Your task to perform on an android device: Look up the best rated gaming chairs on Target. Image 0: 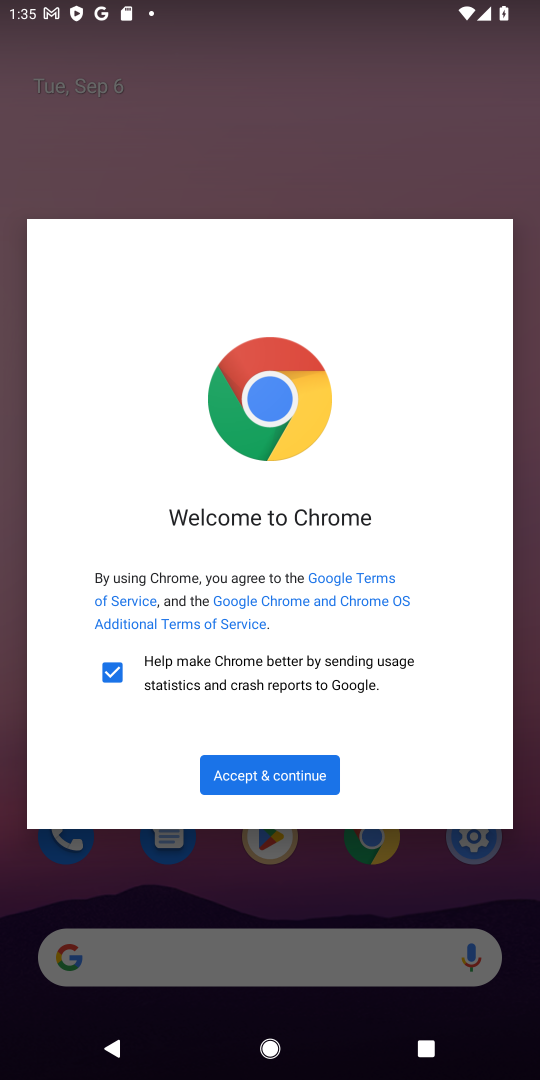
Step 0: click (260, 777)
Your task to perform on an android device: Look up the best rated gaming chairs on Target. Image 1: 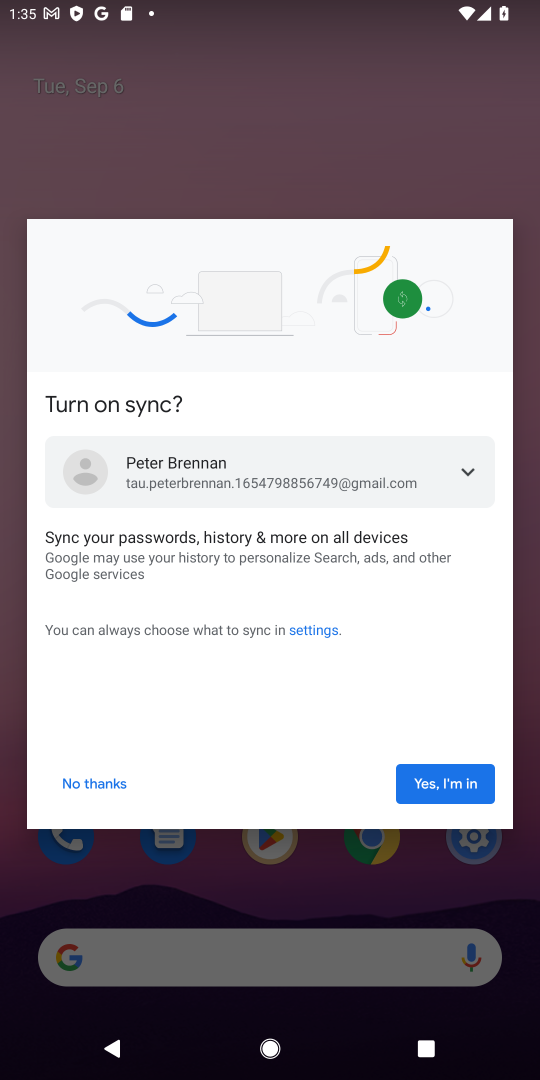
Step 1: click (444, 791)
Your task to perform on an android device: Look up the best rated gaming chairs on Target. Image 2: 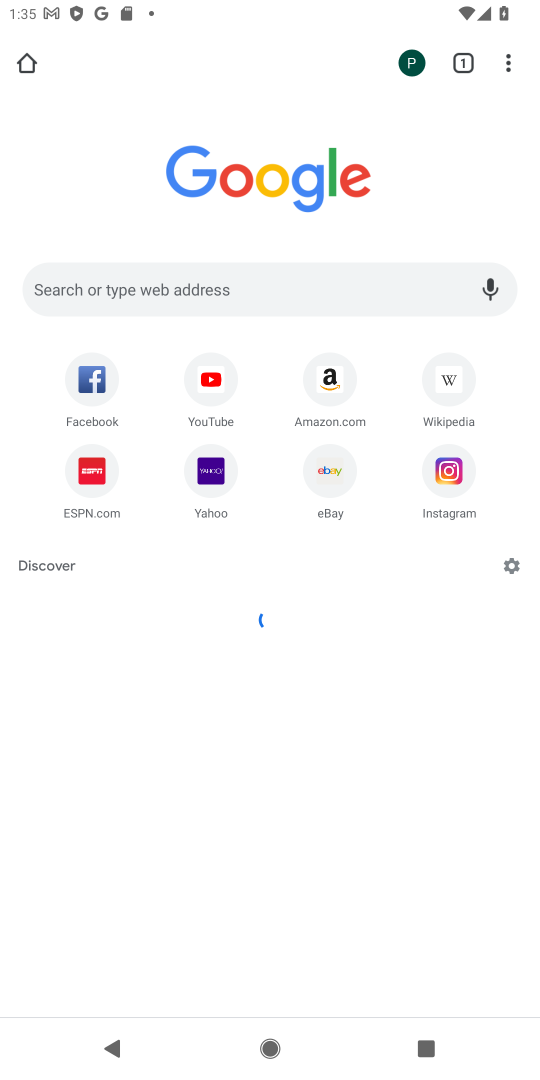
Step 2: click (235, 289)
Your task to perform on an android device: Look up the best rated gaming chairs on Target. Image 3: 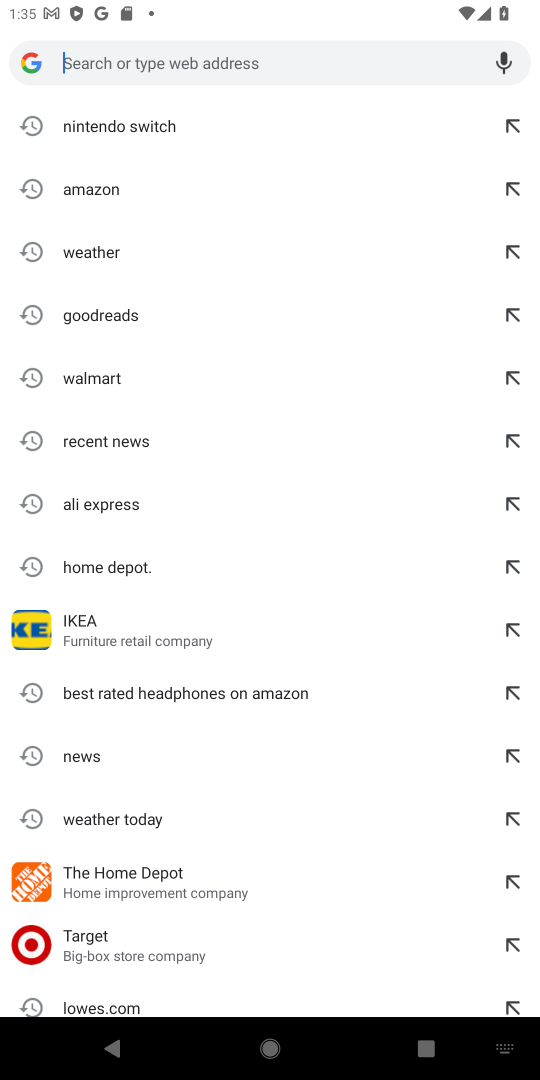
Step 3: click (68, 939)
Your task to perform on an android device: Look up the best rated gaming chairs on Target. Image 4: 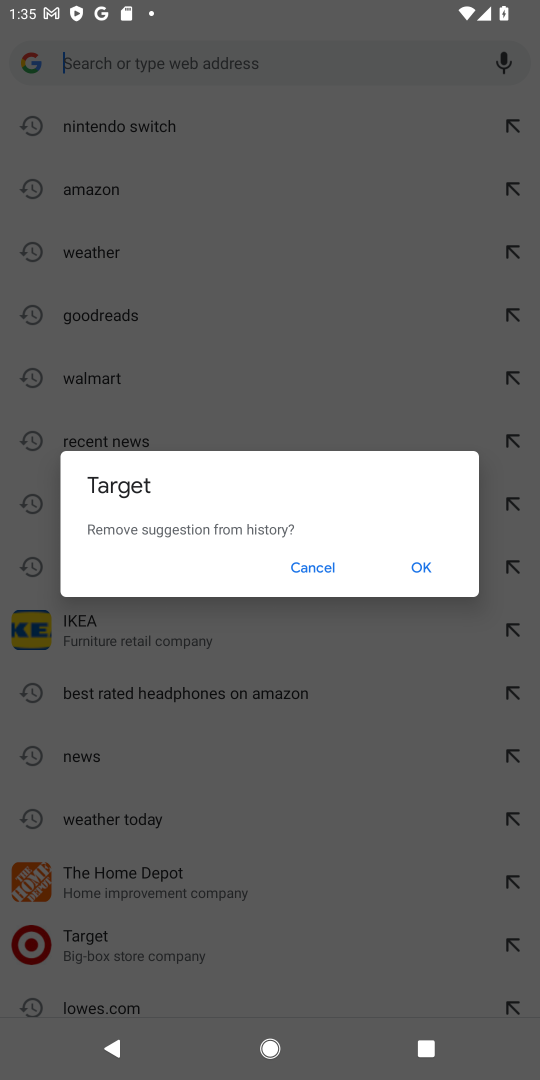
Step 4: click (310, 568)
Your task to perform on an android device: Look up the best rated gaming chairs on Target. Image 5: 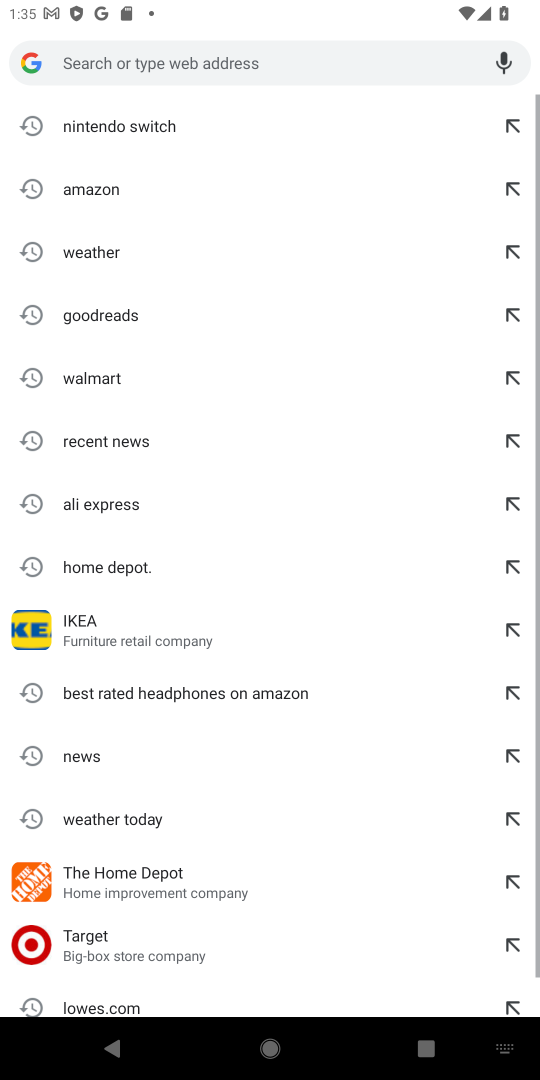
Step 5: click (106, 931)
Your task to perform on an android device: Look up the best rated gaming chairs on Target. Image 6: 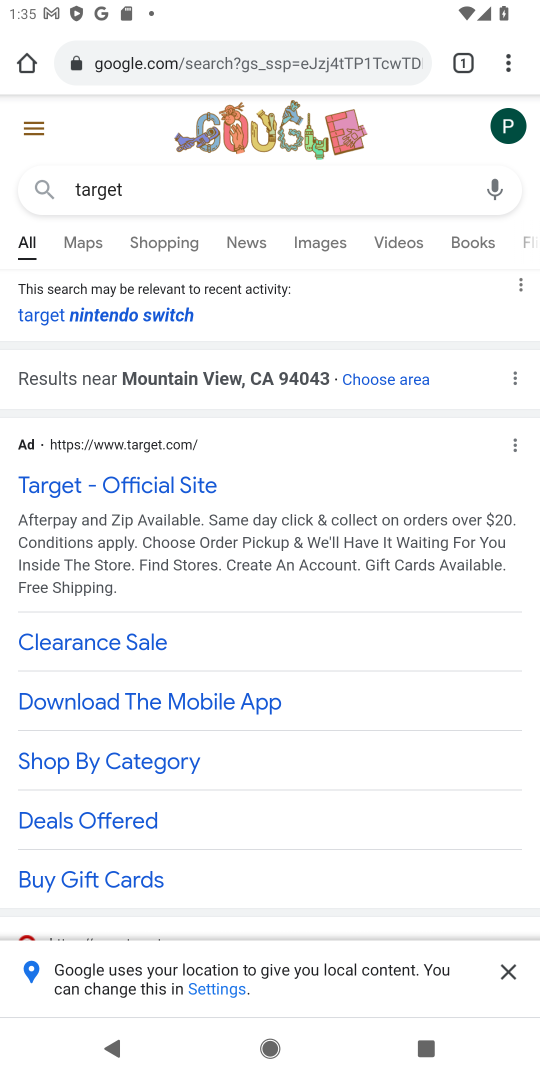
Step 6: click (120, 474)
Your task to perform on an android device: Look up the best rated gaming chairs on Target. Image 7: 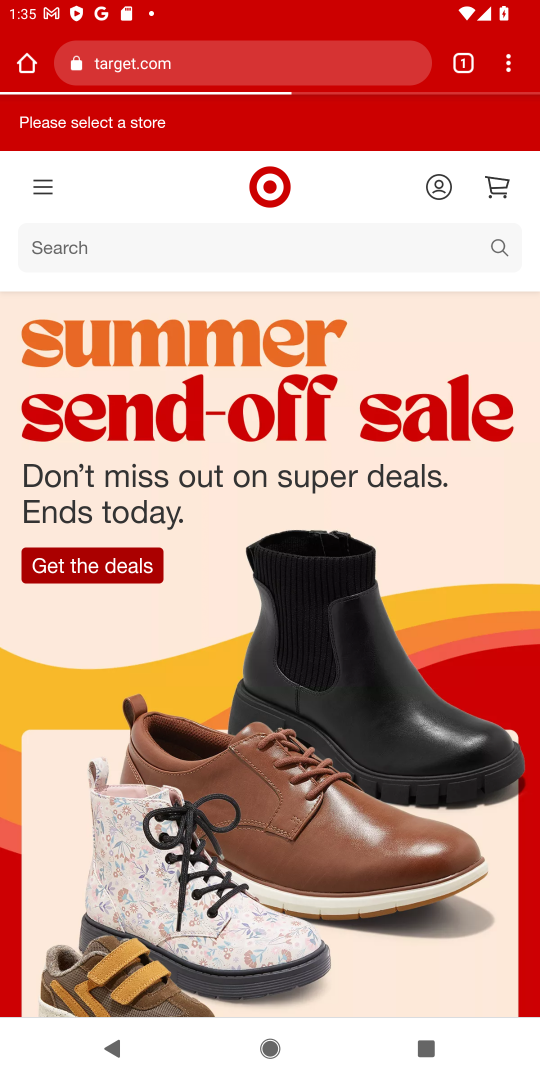
Step 7: click (252, 237)
Your task to perform on an android device: Look up the best rated gaming chairs on Target. Image 8: 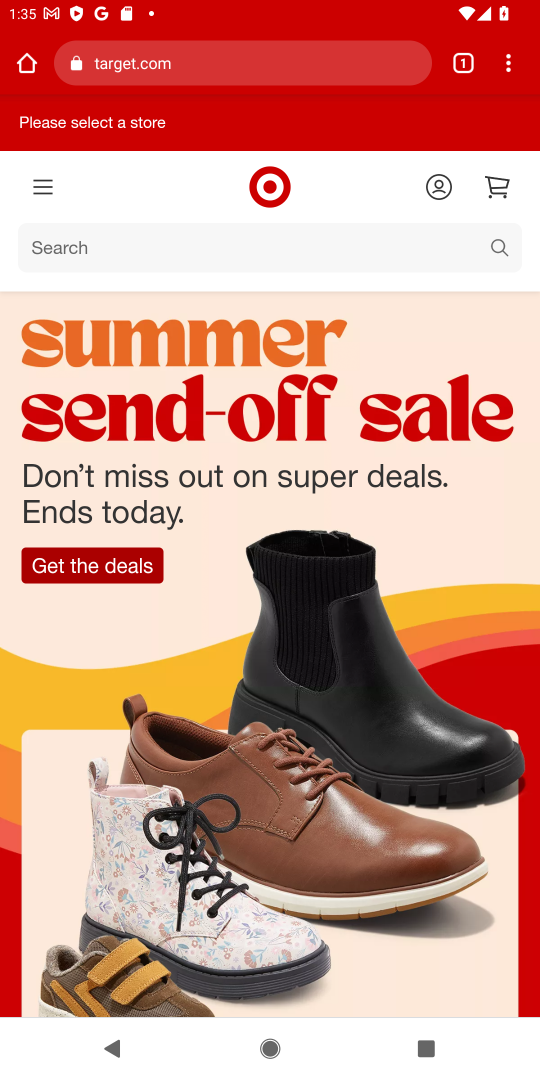
Step 8: click (100, 240)
Your task to perform on an android device: Look up the best rated gaming chairs on Target. Image 9: 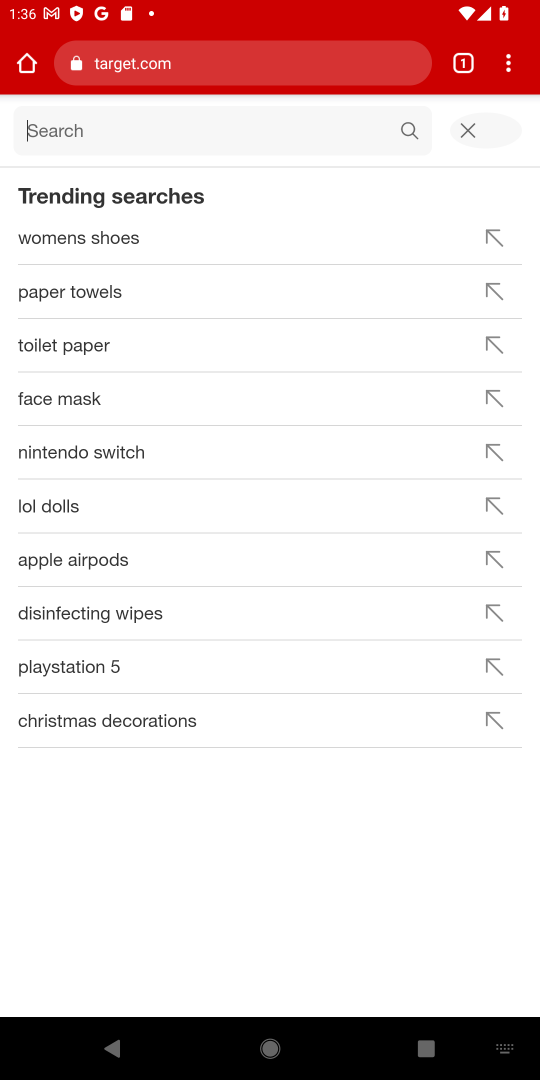
Step 9: type "best rated gaming chairs"
Your task to perform on an android device: Look up the best rated gaming chairs on Target. Image 10: 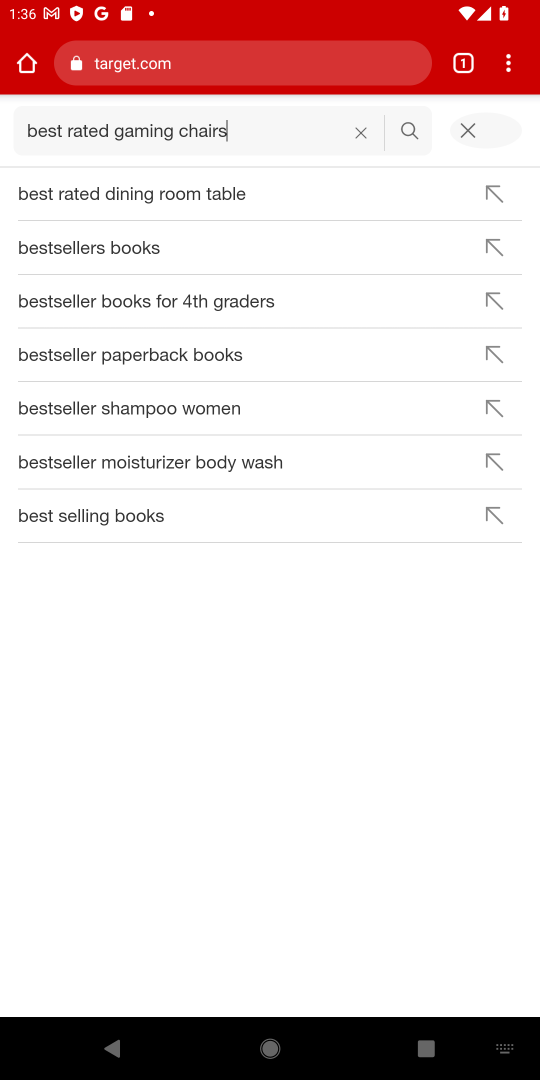
Step 10: click (405, 127)
Your task to perform on an android device: Look up the best rated gaming chairs on Target. Image 11: 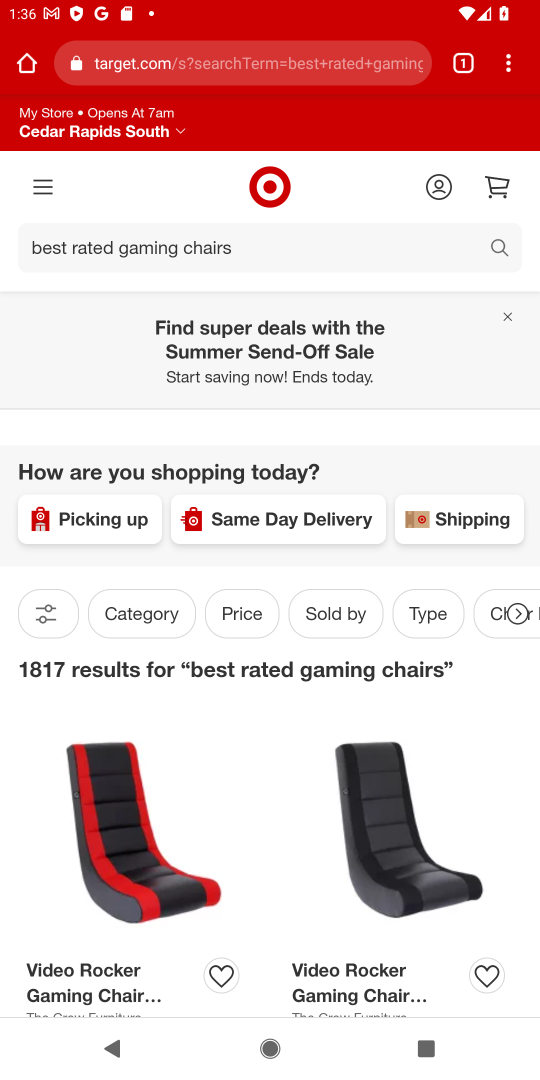
Step 11: task complete